Your task to perform on an android device: Go to Wikipedia Image 0: 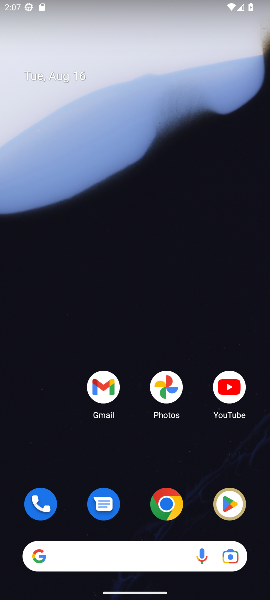
Step 0: click (165, 502)
Your task to perform on an android device: Go to Wikipedia Image 1: 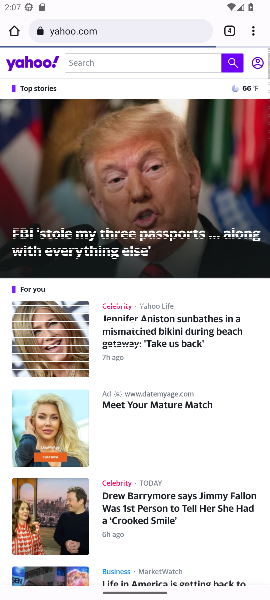
Step 1: click (247, 30)
Your task to perform on an android device: Go to Wikipedia Image 2: 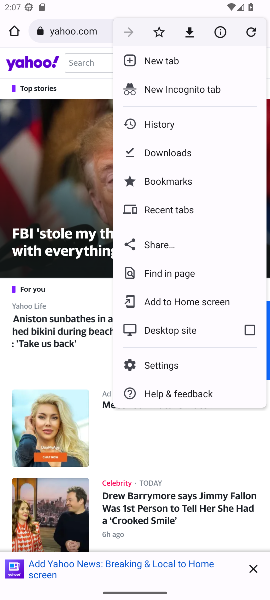
Step 2: click (154, 60)
Your task to perform on an android device: Go to Wikipedia Image 3: 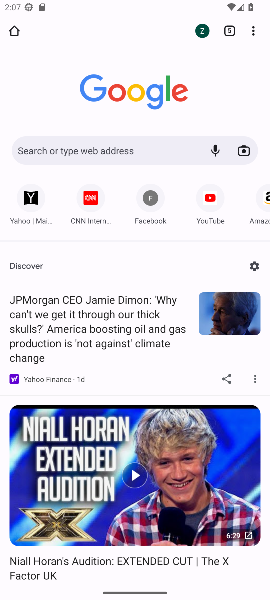
Step 3: click (121, 145)
Your task to perform on an android device: Go to Wikipedia Image 4: 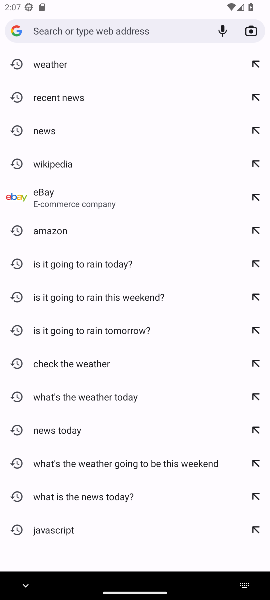
Step 4: click (44, 161)
Your task to perform on an android device: Go to Wikipedia Image 5: 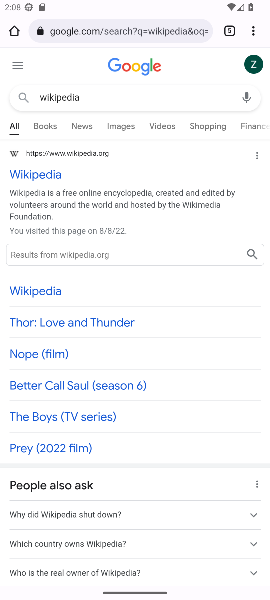
Step 5: click (35, 172)
Your task to perform on an android device: Go to Wikipedia Image 6: 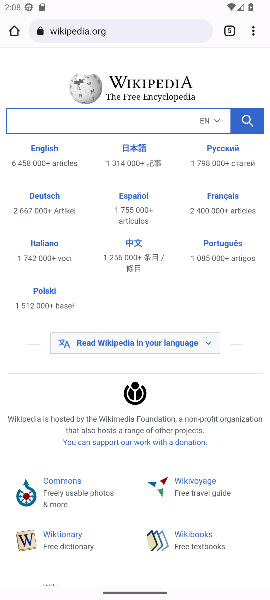
Step 6: task complete